Your task to perform on an android device: Go to settings Image 0: 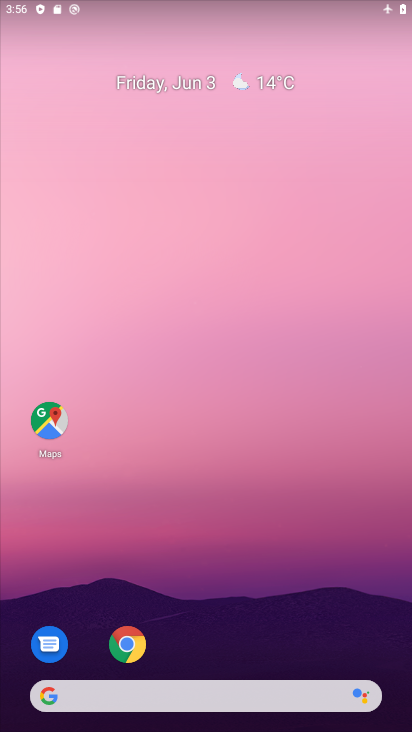
Step 0: click (299, 100)
Your task to perform on an android device: Go to settings Image 1: 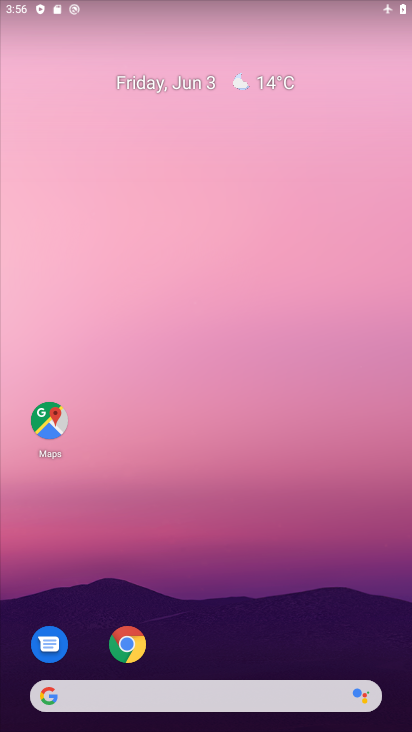
Step 1: click (170, 625)
Your task to perform on an android device: Go to settings Image 2: 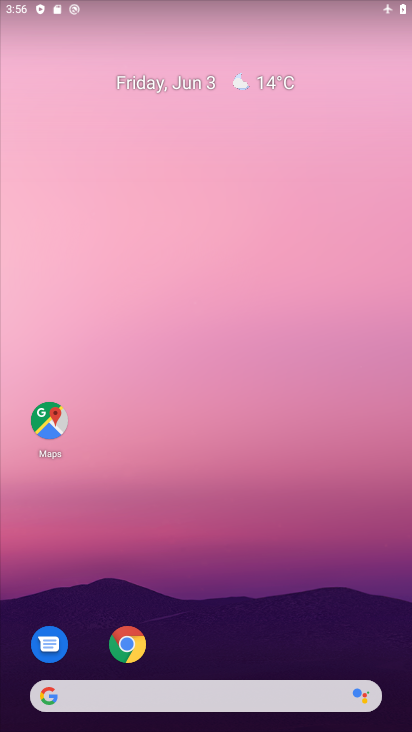
Step 2: drag from (170, 625) to (211, 251)
Your task to perform on an android device: Go to settings Image 3: 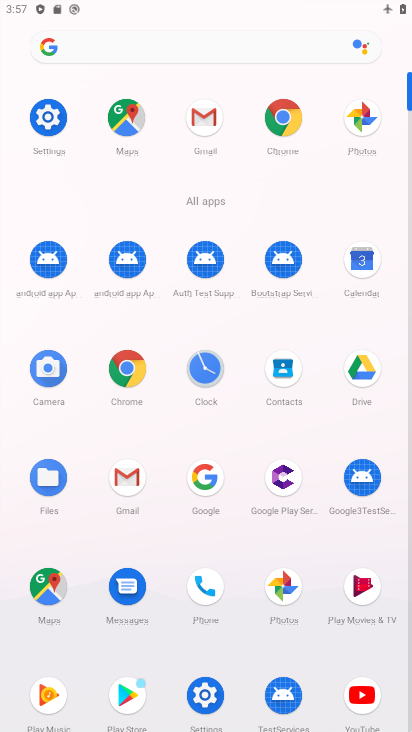
Step 3: click (55, 116)
Your task to perform on an android device: Go to settings Image 4: 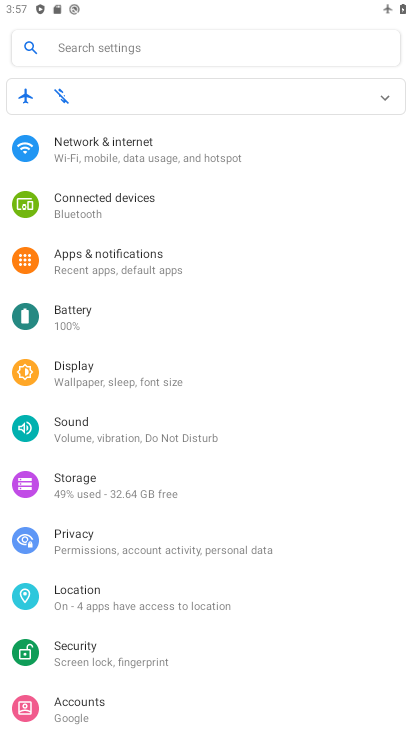
Step 4: task complete